Your task to perform on an android device: Go to Google Image 0: 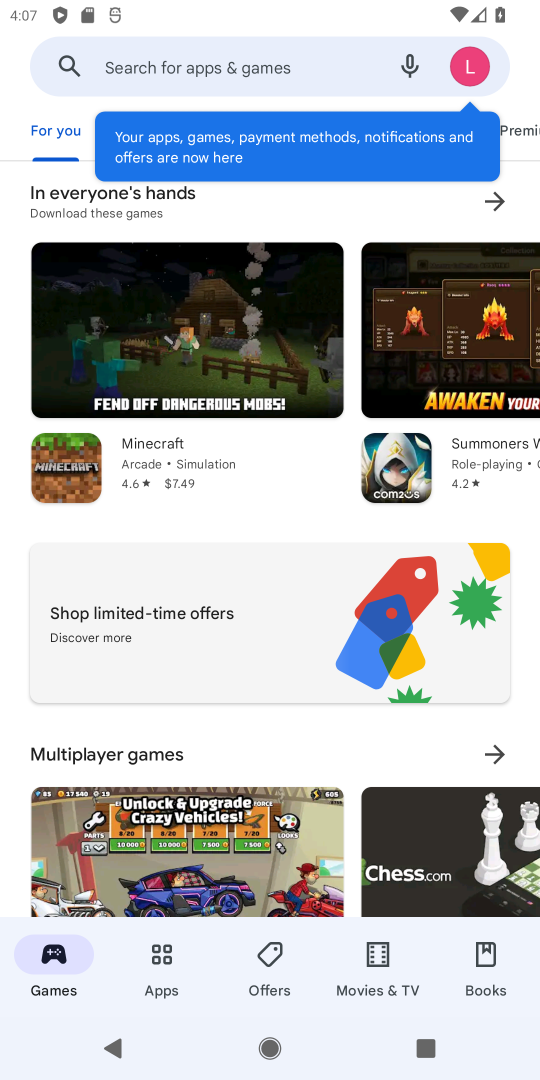
Step 0: press home button
Your task to perform on an android device: Go to Google Image 1: 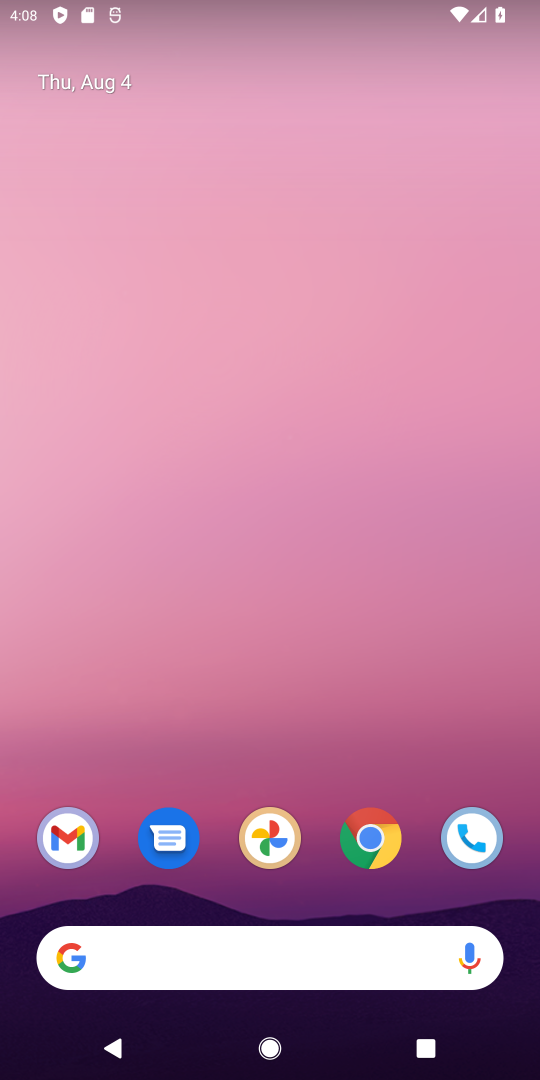
Step 1: drag from (359, 751) to (339, 194)
Your task to perform on an android device: Go to Google Image 2: 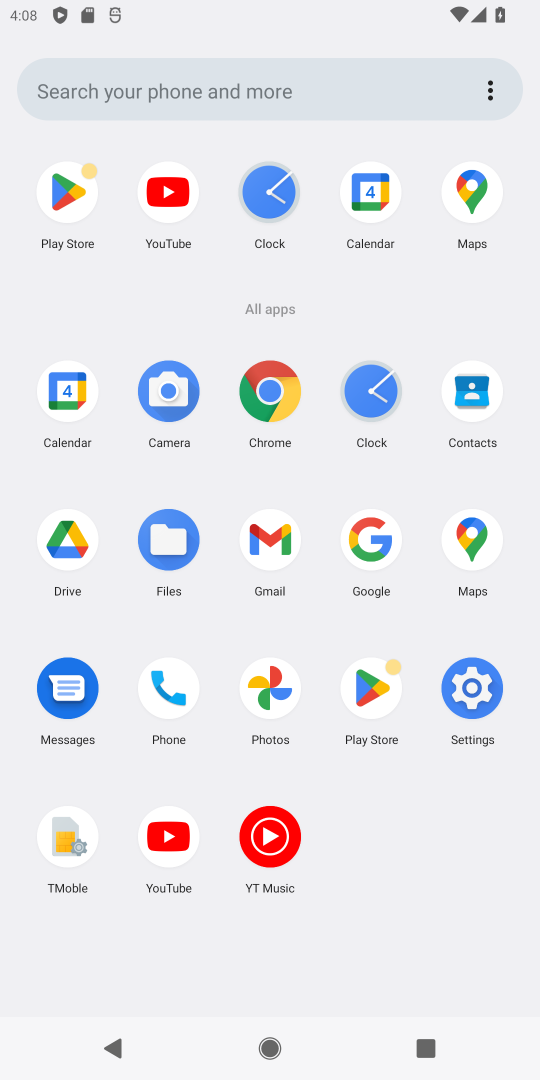
Step 2: click (362, 524)
Your task to perform on an android device: Go to Google Image 3: 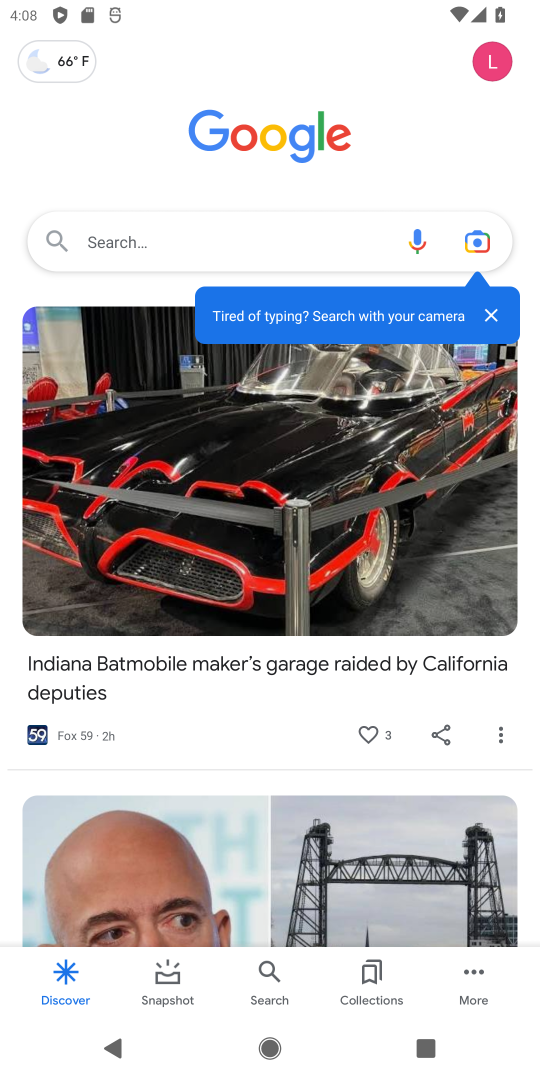
Step 3: task complete